Your task to perform on an android device: Open calendar and show me the first week of next month Image 0: 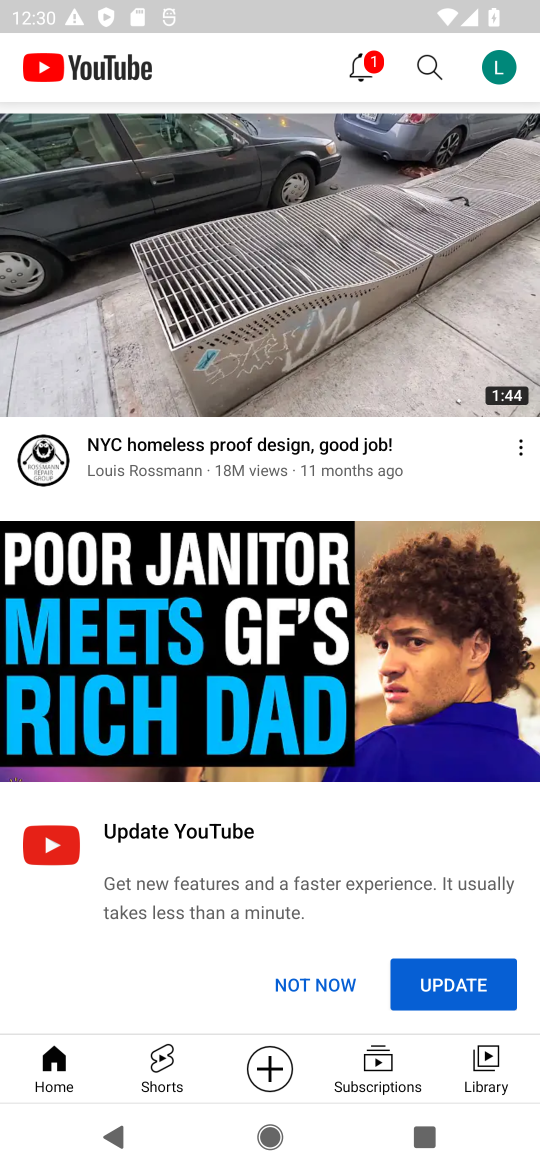
Step 0: press back button
Your task to perform on an android device: Open calendar and show me the first week of next month Image 1: 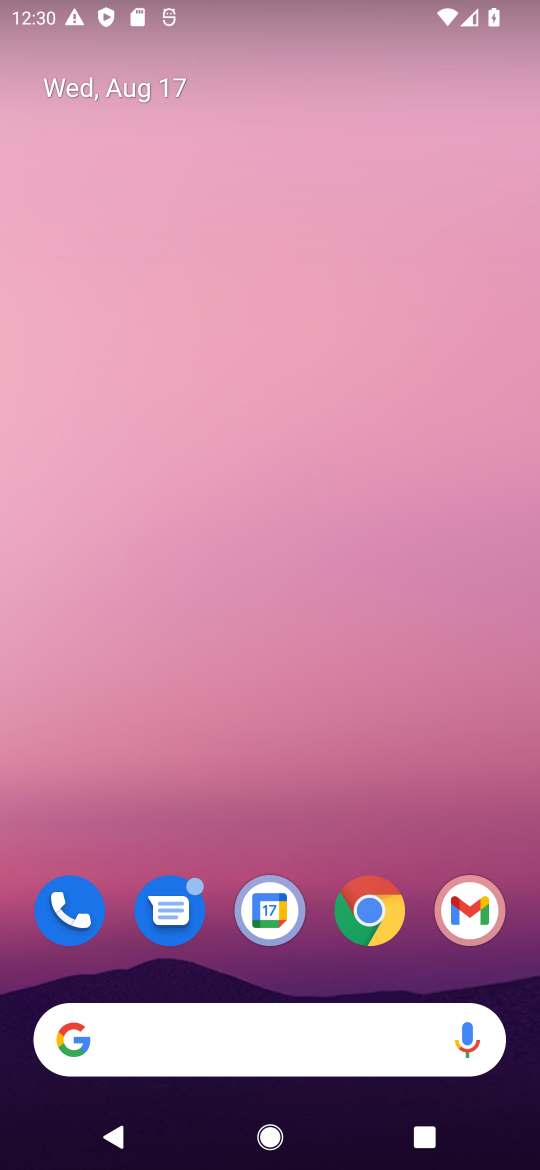
Step 1: click (268, 894)
Your task to perform on an android device: Open calendar and show me the first week of next month Image 2: 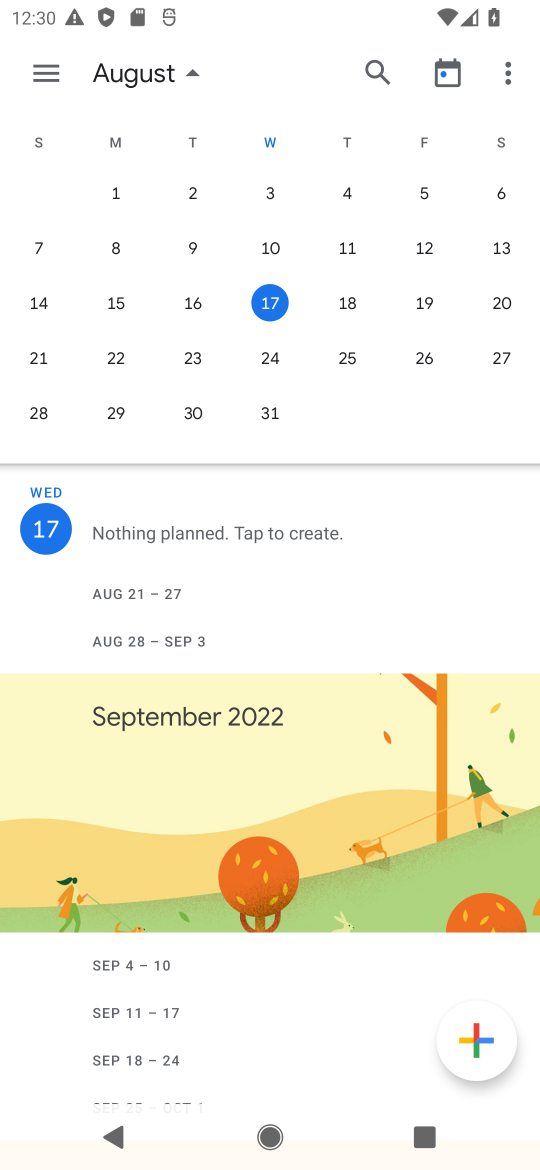
Step 2: task complete